Your task to perform on an android device: toggle wifi Image 0: 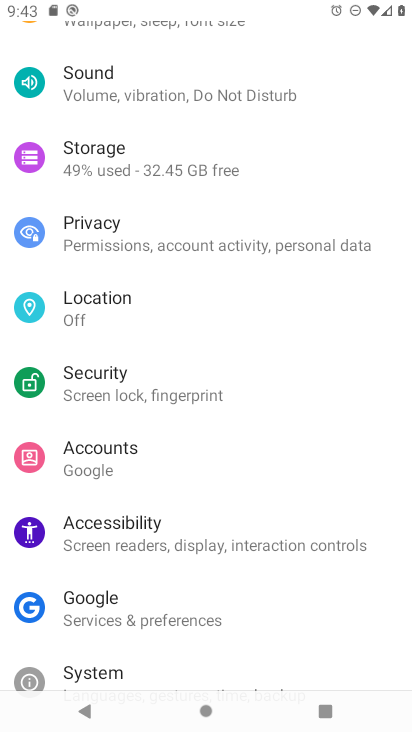
Step 0: press home button
Your task to perform on an android device: toggle wifi Image 1: 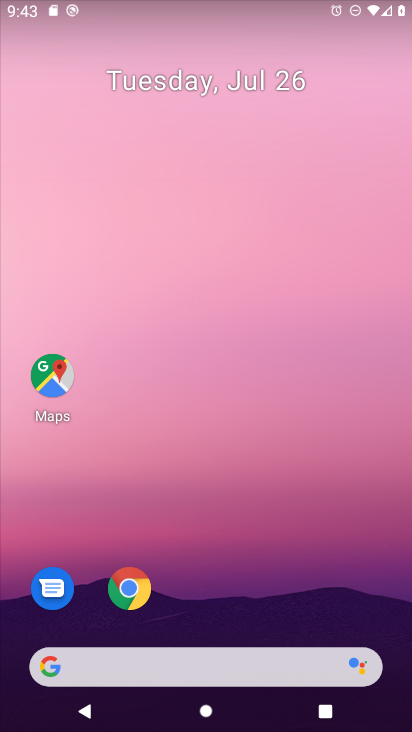
Step 1: drag from (248, 655) to (300, 57)
Your task to perform on an android device: toggle wifi Image 2: 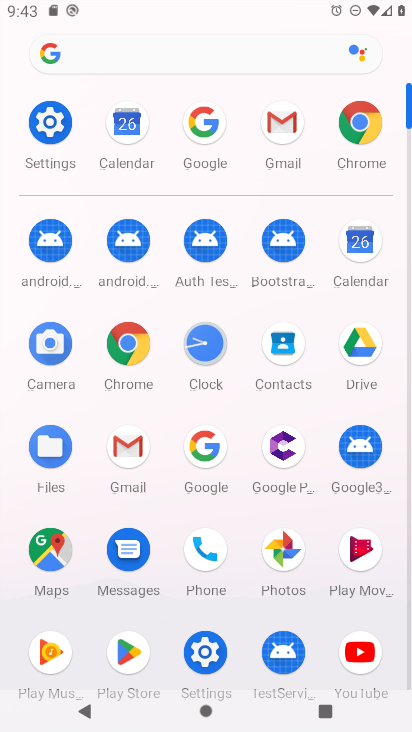
Step 2: click (74, 134)
Your task to perform on an android device: toggle wifi Image 3: 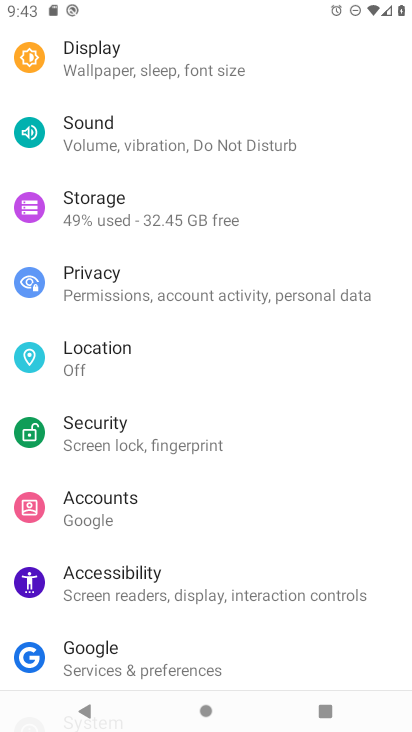
Step 3: drag from (148, 254) to (177, 561)
Your task to perform on an android device: toggle wifi Image 4: 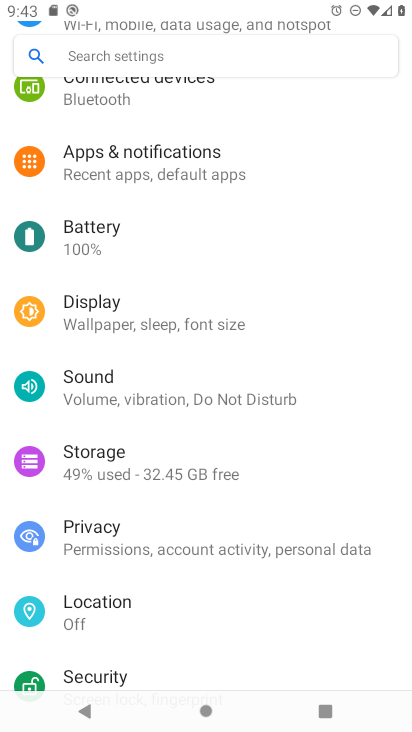
Step 4: drag from (212, 269) to (251, 630)
Your task to perform on an android device: toggle wifi Image 5: 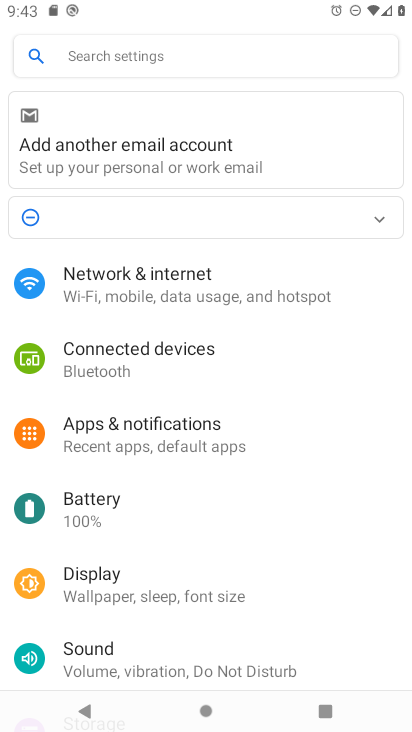
Step 5: click (223, 287)
Your task to perform on an android device: toggle wifi Image 6: 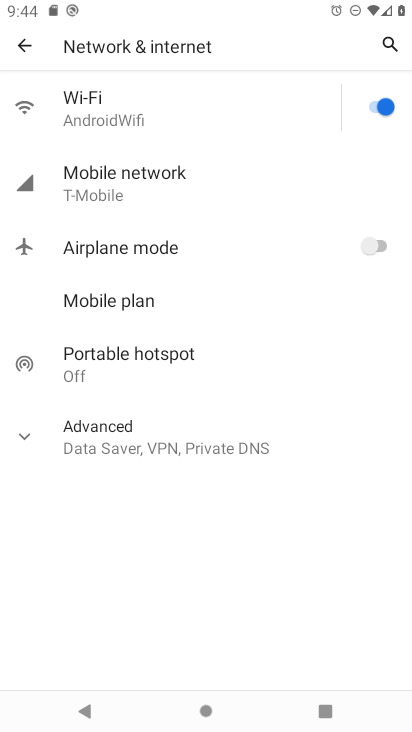
Step 6: click (381, 105)
Your task to perform on an android device: toggle wifi Image 7: 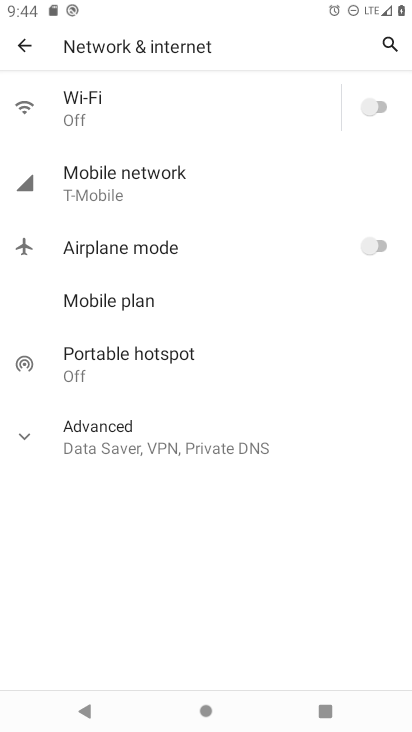
Step 7: task complete